Your task to perform on an android device: What's a good restaurant in Miami? Image 0: 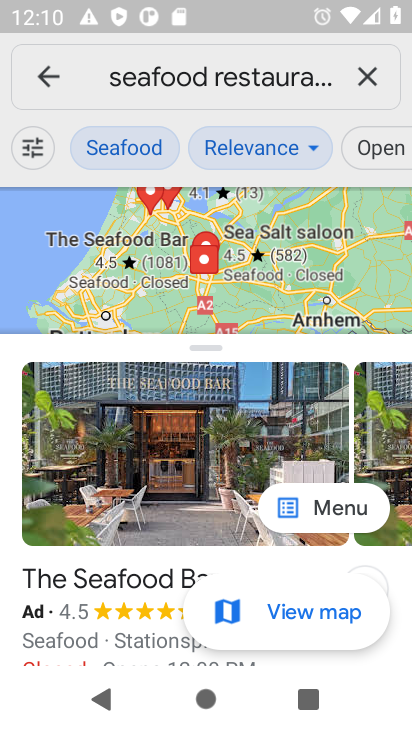
Step 0: press back button
Your task to perform on an android device: What's a good restaurant in Miami? Image 1: 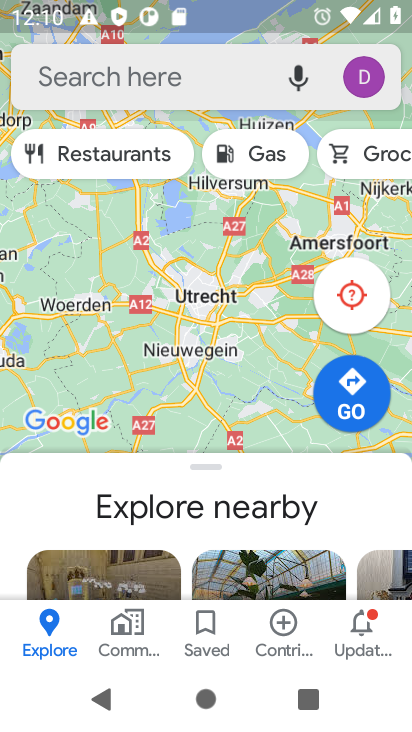
Step 1: press home button
Your task to perform on an android device: What's a good restaurant in Miami? Image 2: 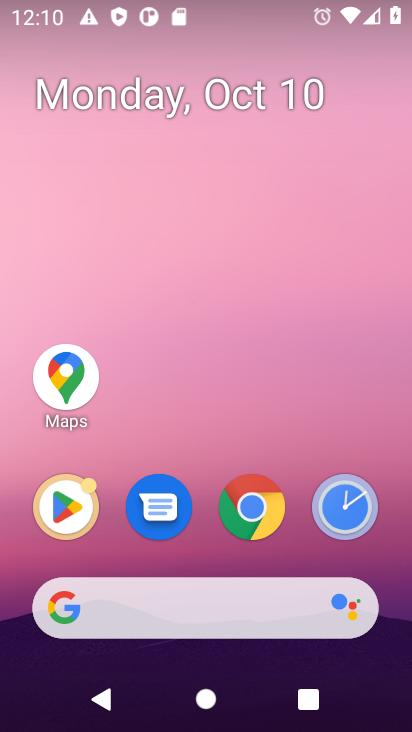
Step 2: click (227, 599)
Your task to perform on an android device: What's a good restaurant in Miami? Image 3: 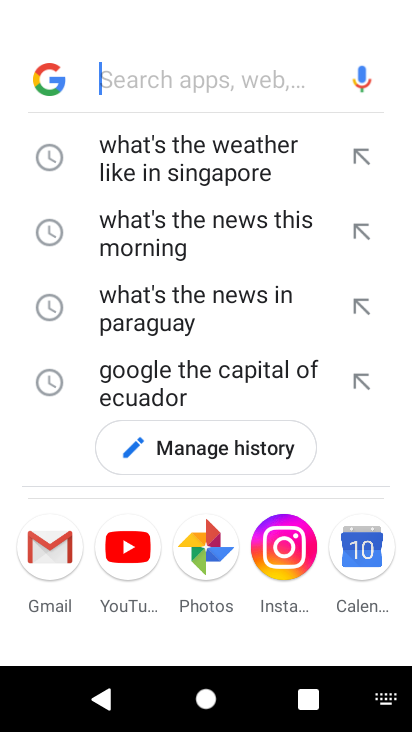
Step 3: type "What's a good restaurant in Miami?"
Your task to perform on an android device: What's a good restaurant in Miami? Image 4: 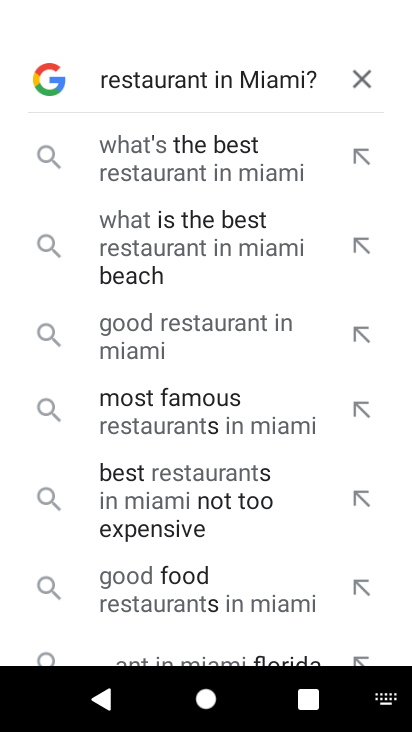
Step 4: press enter
Your task to perform on an android device: What's a good restaurant in Miami? Image 5: 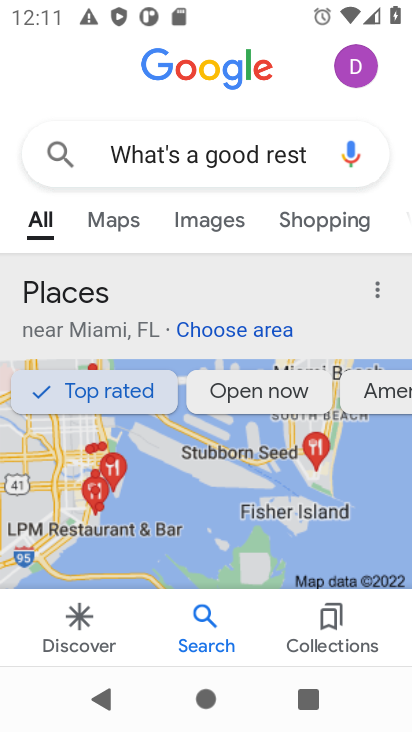
Step 5: task complete